Your task to perform on an android device: When is my next meeting? Image 0: 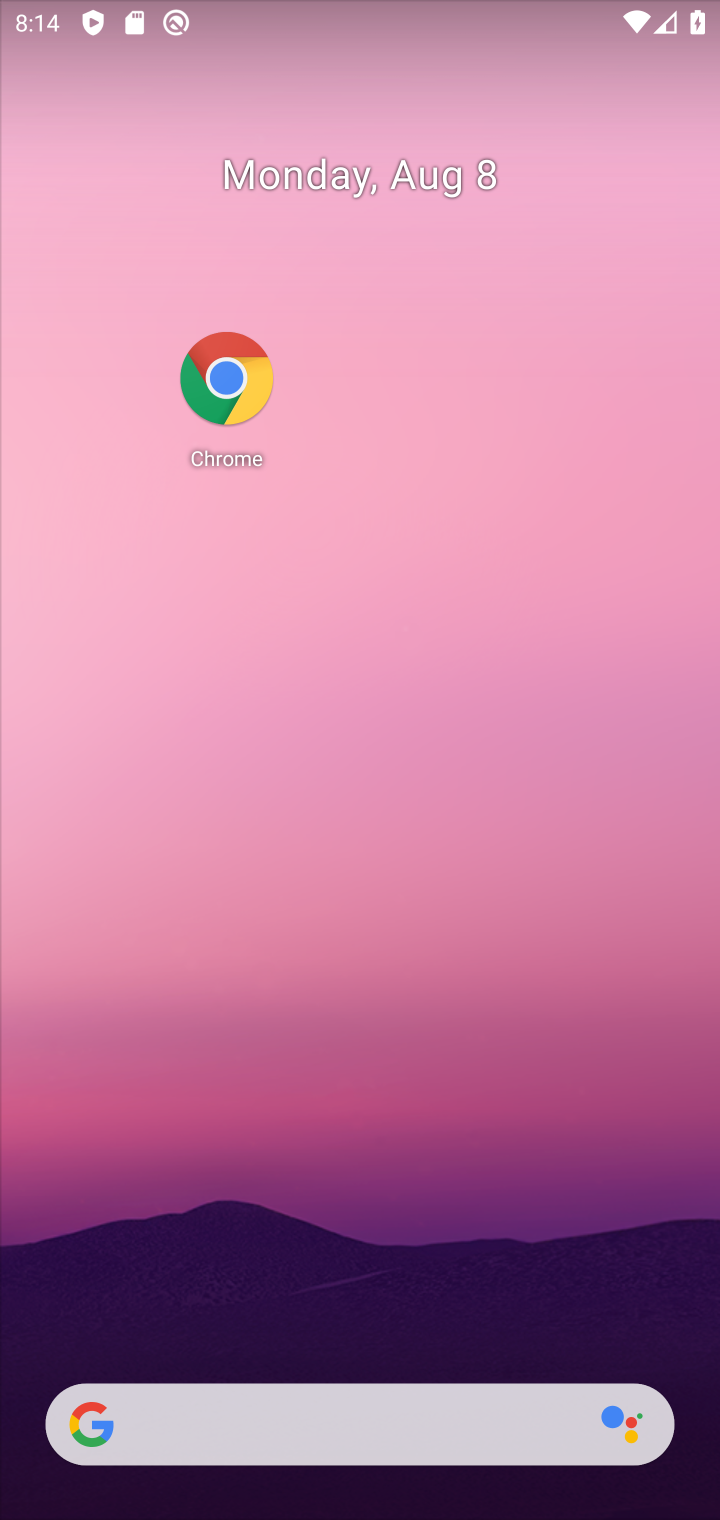
Step 0: drag from (240, 1263) to (310, 608)
Your task to perform on an android device: When is my next meeting? Image 1: 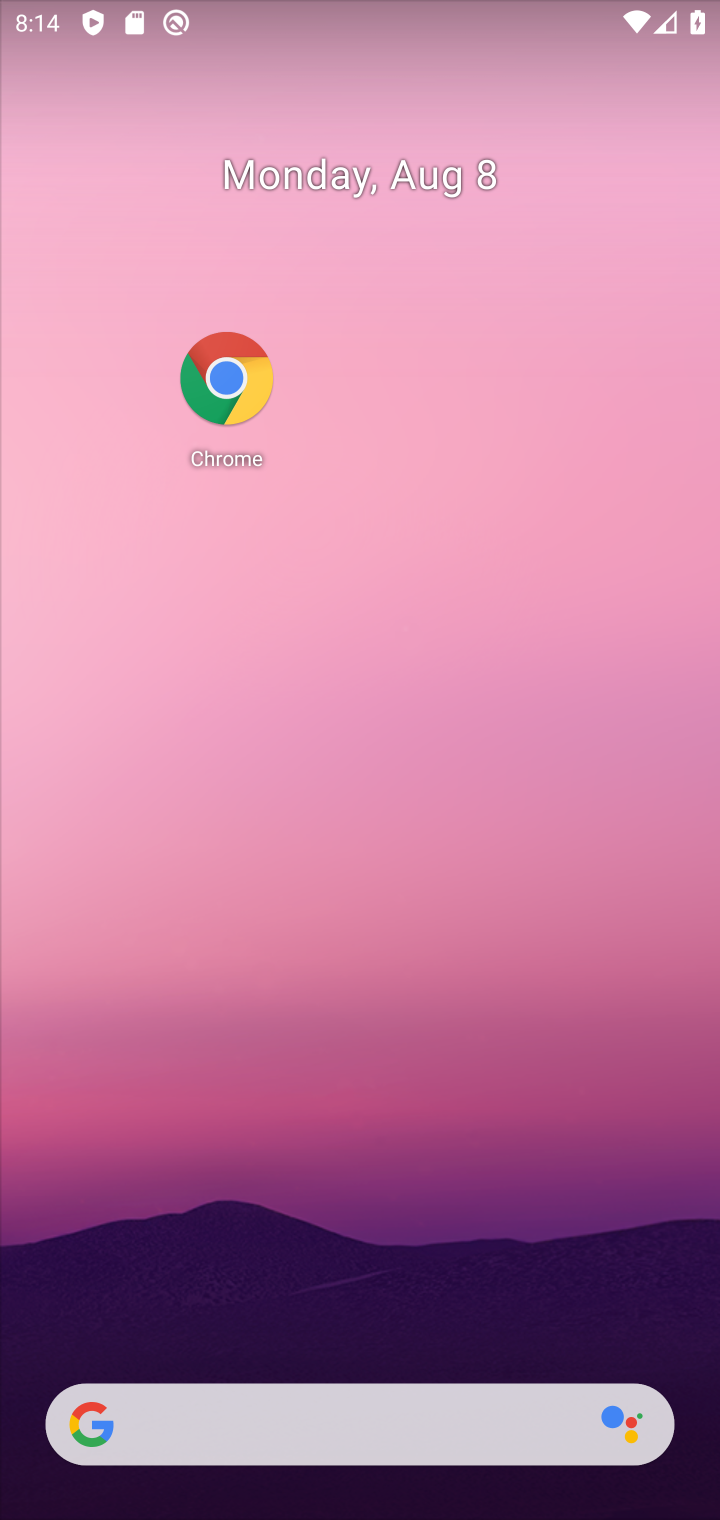
Step 1: drag from (171, 1290) to (278, 685)
Your task to perform on an android device: When is my next meeting? Image 2: 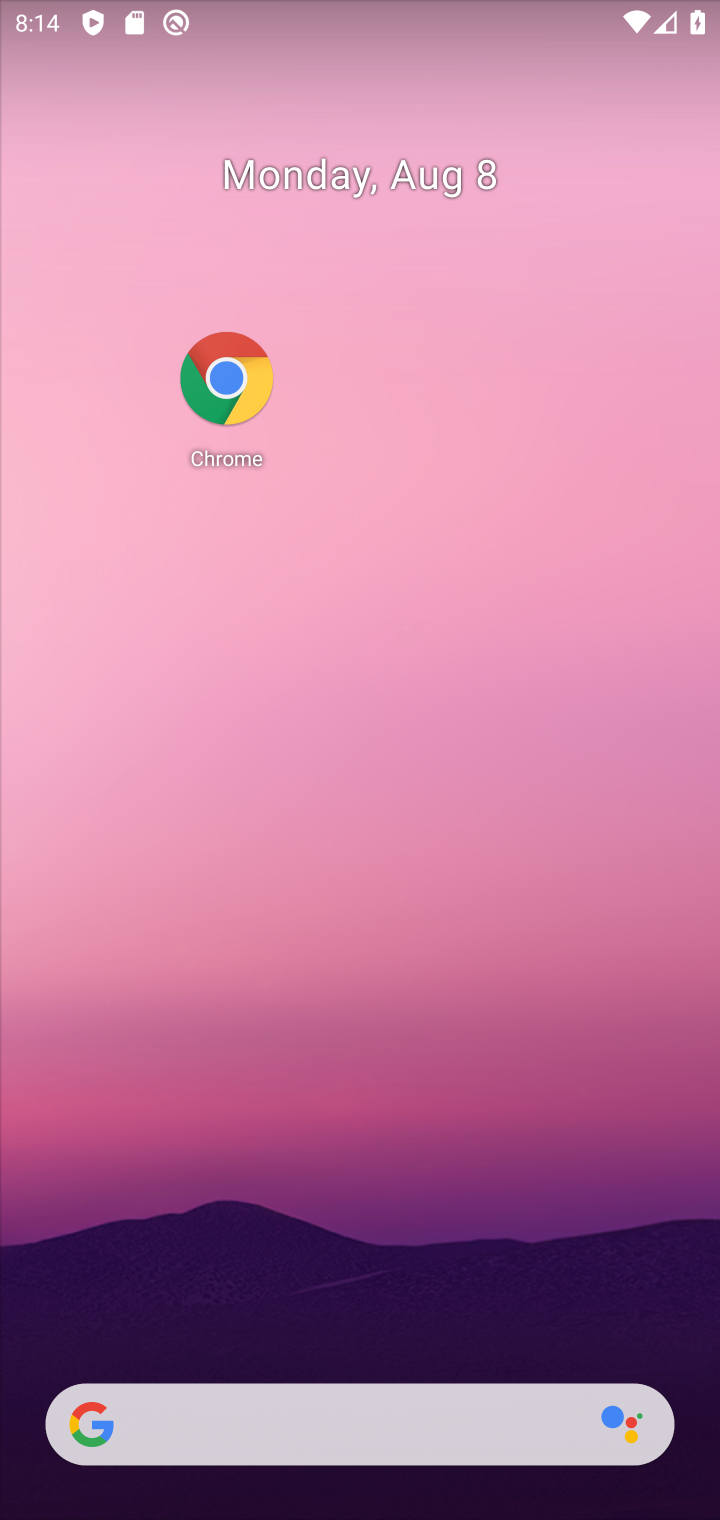
Step 2: drag from (185, 1163) to (319, 778)
Your task to perform on an android device: When is my next meeting? Image 3: 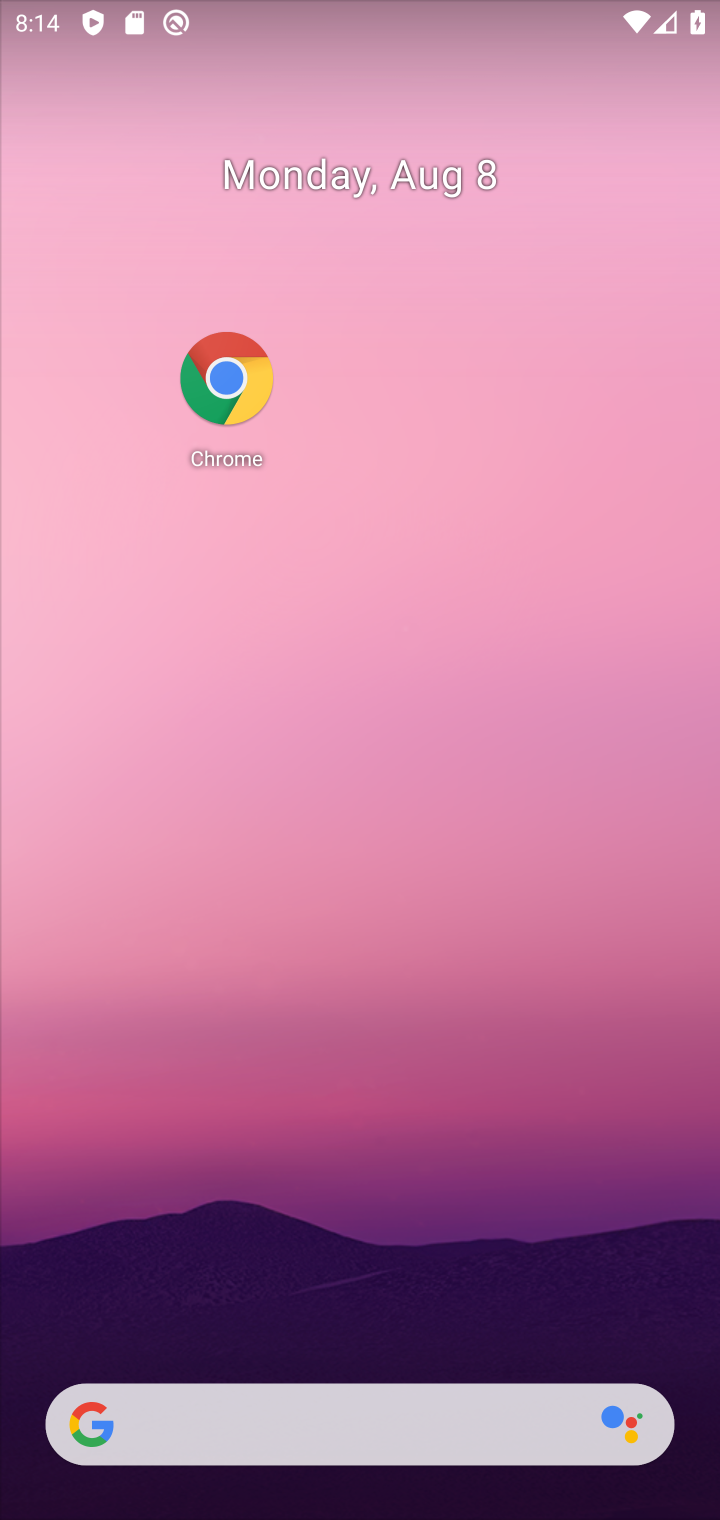
Step 3: drag from (212, 1329) to (275, 685)
Your task to perform on an android device: When is my next meeting? Image 4: 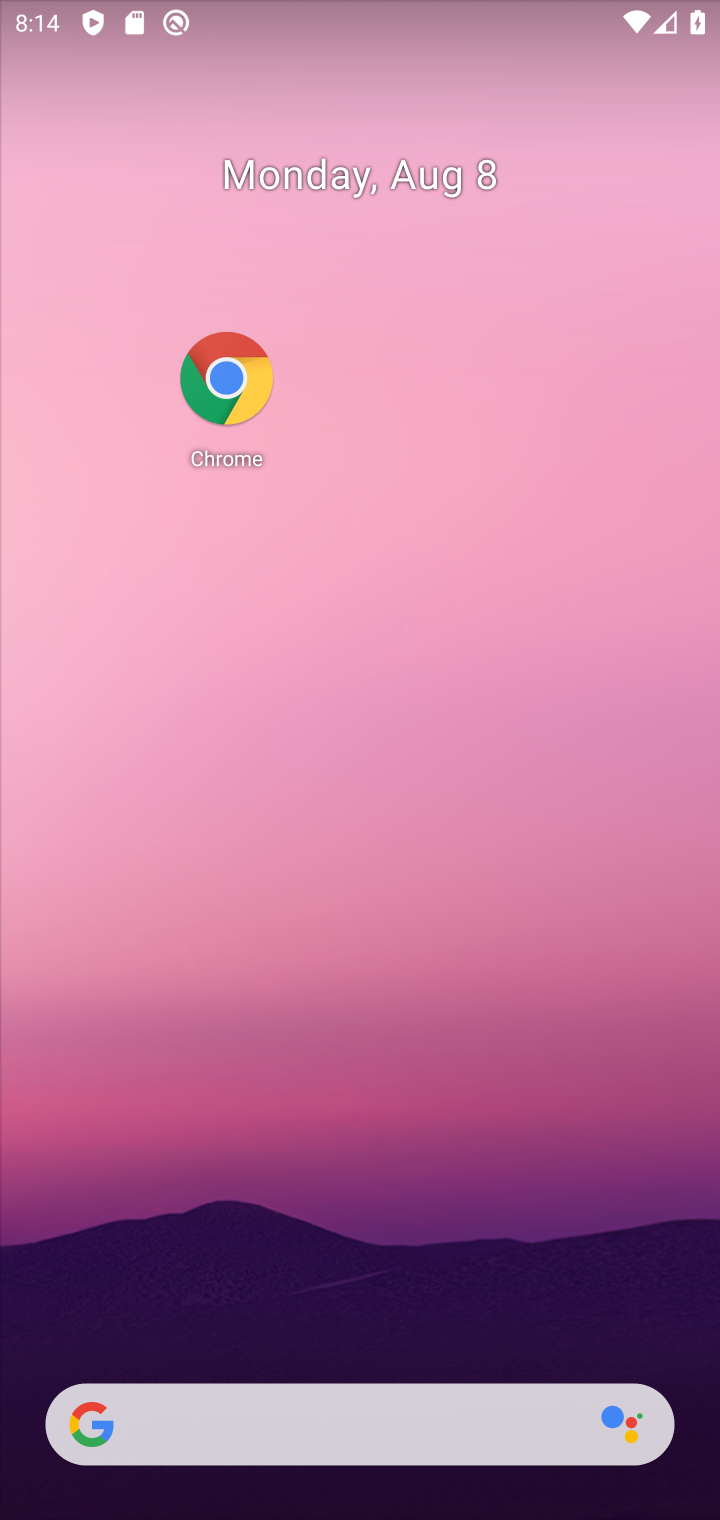
Step 4: drag from (328, 1419) to (544, 271)
Your task to perform on an android device: When is my next meeting? Image 5: 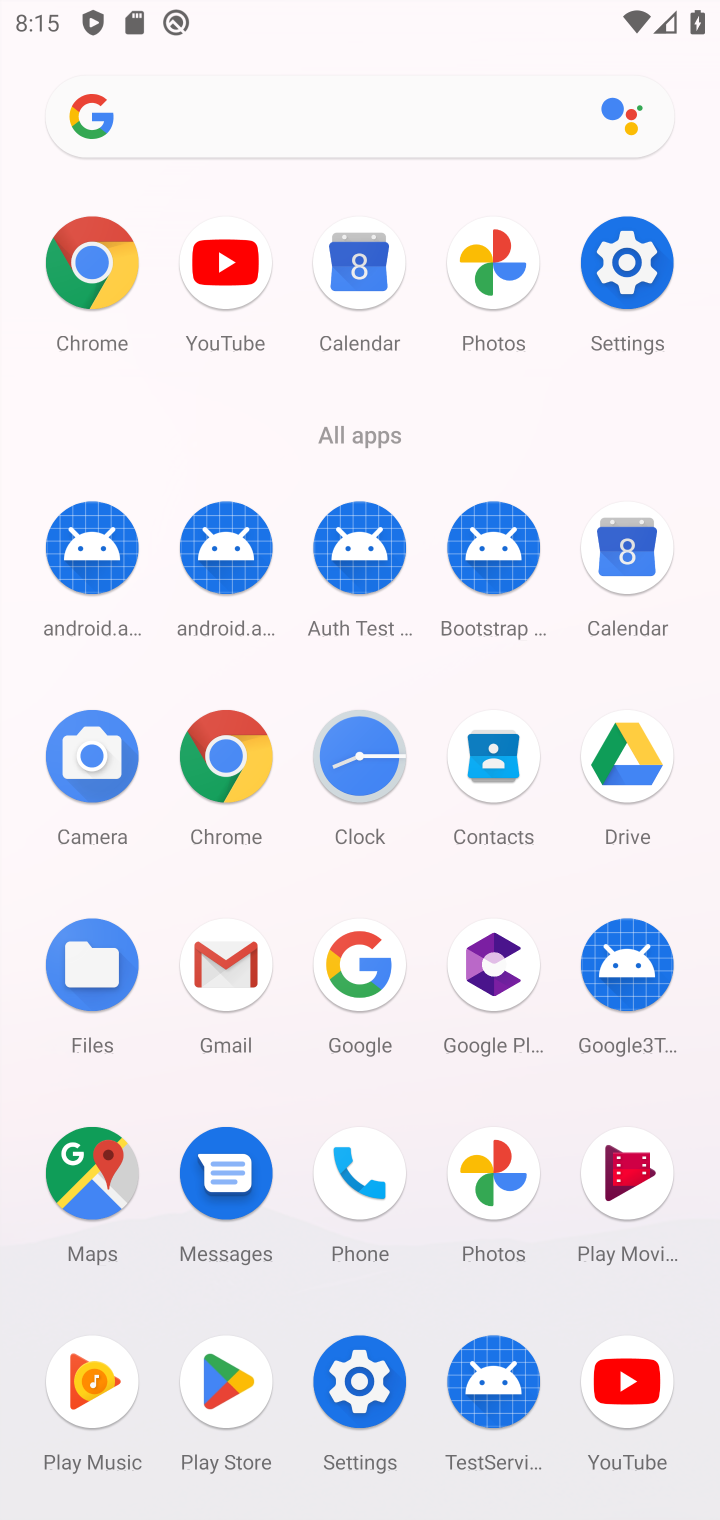
Step 5: click (630, 582)
Your task to perform on an android device: When is my next meeting? Image 6: 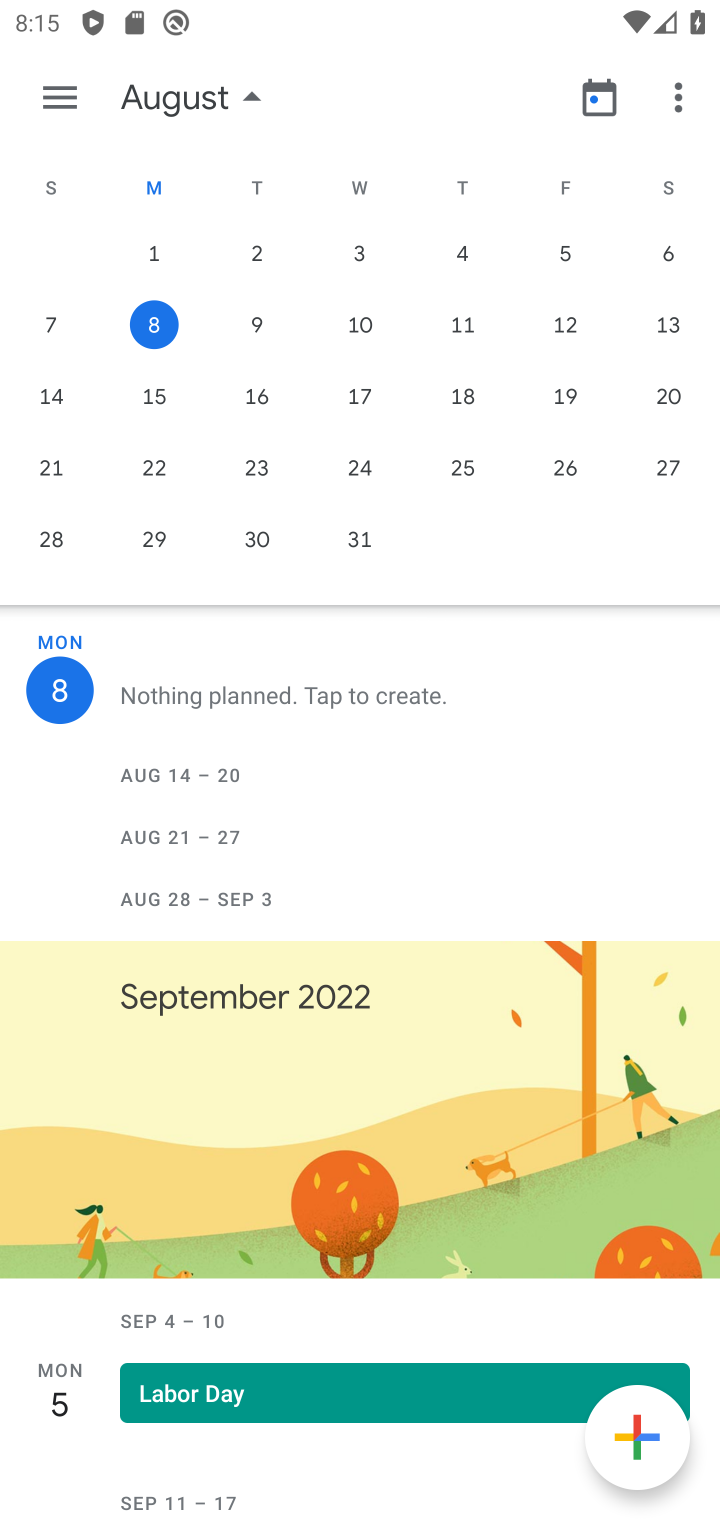
Step 6: click (154, 333)
Your task to perform on an android device: When is my next meeting? Image 7: 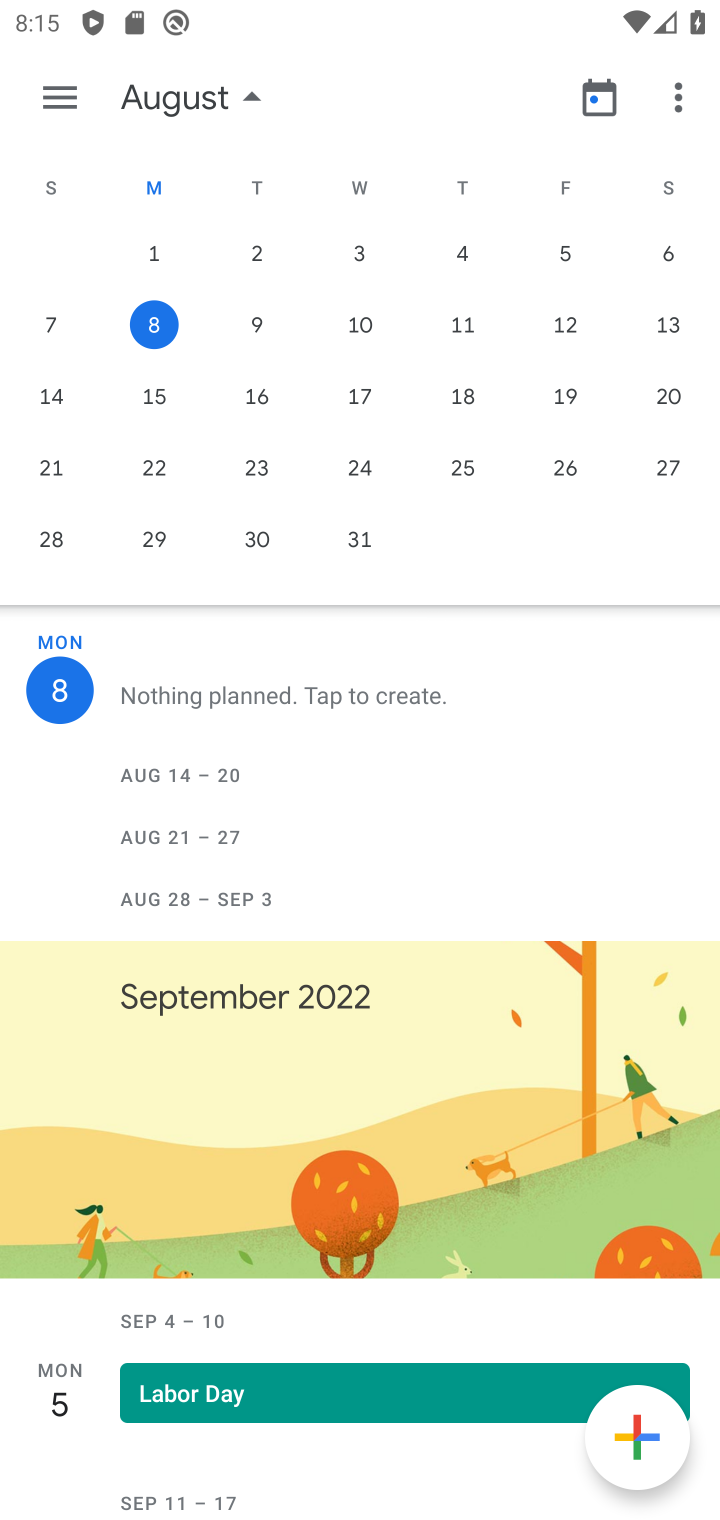
Step 7: task complete